Your task to perform on an android device: turn off smart reply in the gmail app Image 0: 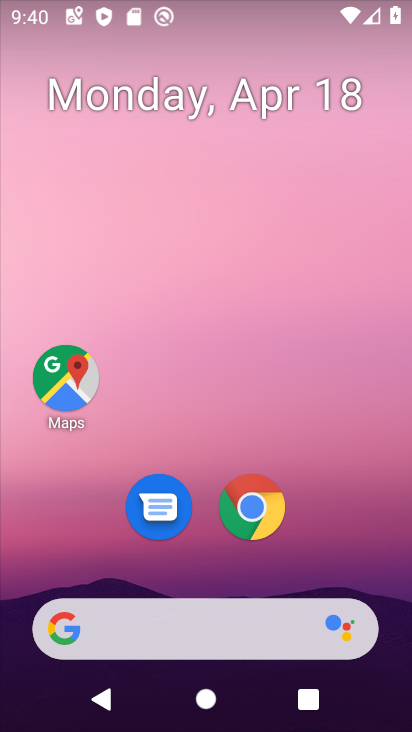
Step 0: drag from (192, 560) to (338, 69)
Your task to perform on an android device: turn off smart reply in the gmail app Image 1: 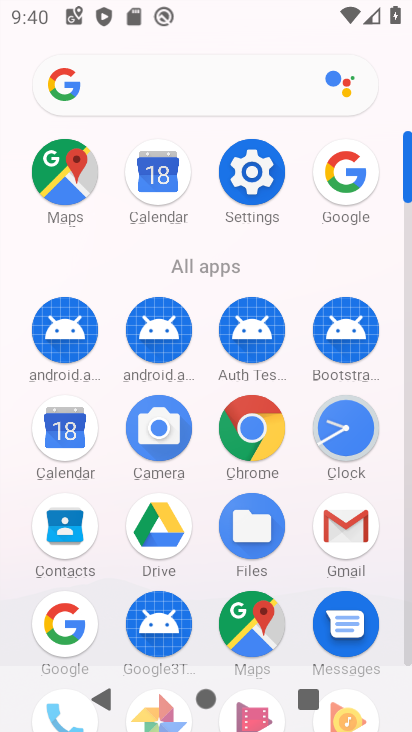
Step 1: click (361, 532)
Your task to perform on an android device: turn off smart reply in the gmail app Image 2: 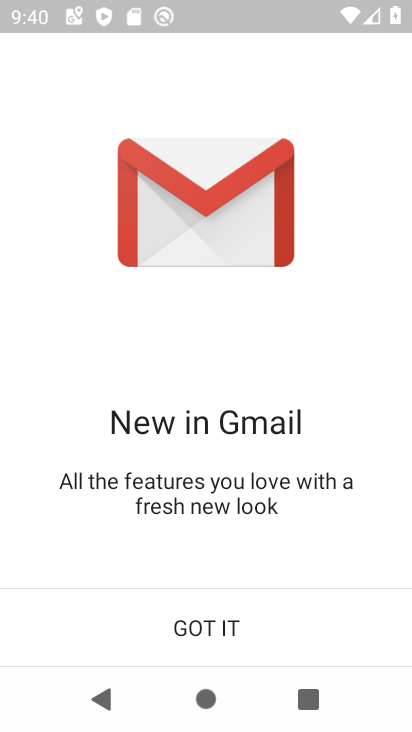
Step 2: click (235, 637)
Your task to perform on an android device: turn off smart reply in the gmail app Image 3: 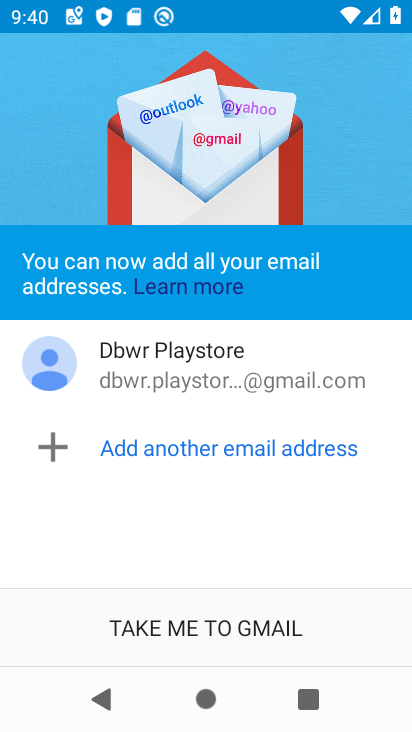
Step 3: click (239, 632)
Your task to perform on an android device: turn off smart reply in the gmail app Image 4: 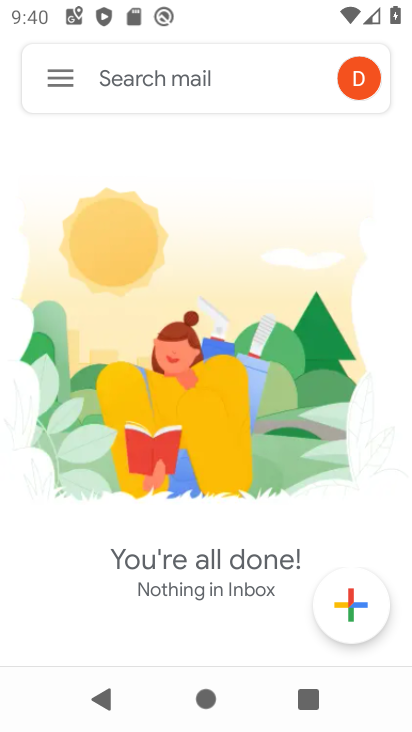
Step 4: click (66, 74)
Your task to perform on an android device: turn off smart reply in the gmail app Image 5: 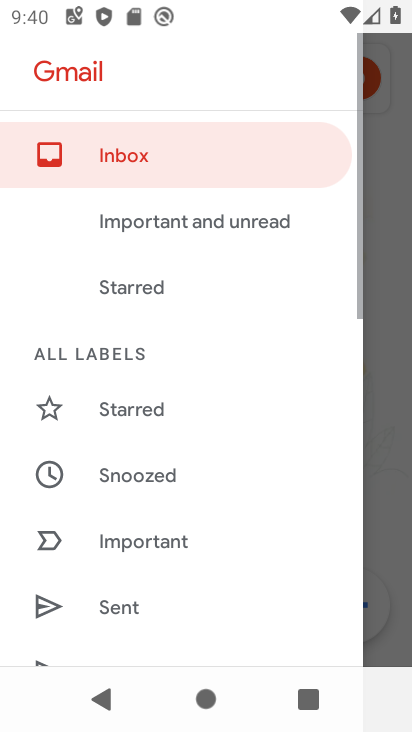
Step 5: drag from (206, 543) to (309, 293)
Your task to perform on an android device: turn off smart reply in the gmail app Image 6: 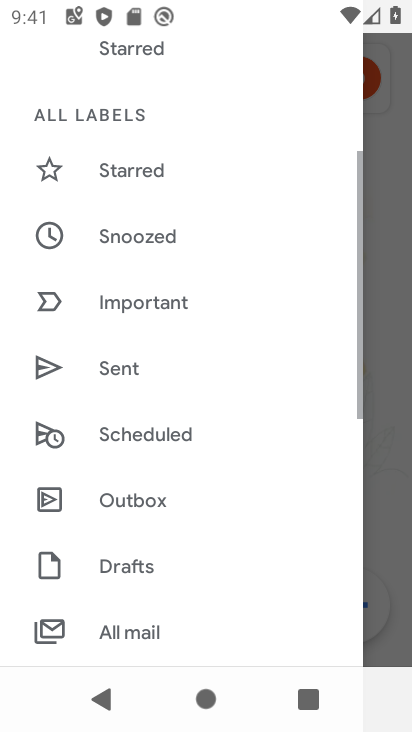
Step 6: drag from (221, 587) to (324, 263)
Your task to perform on an android device: turn off smart reply in the gmail app Image 7: 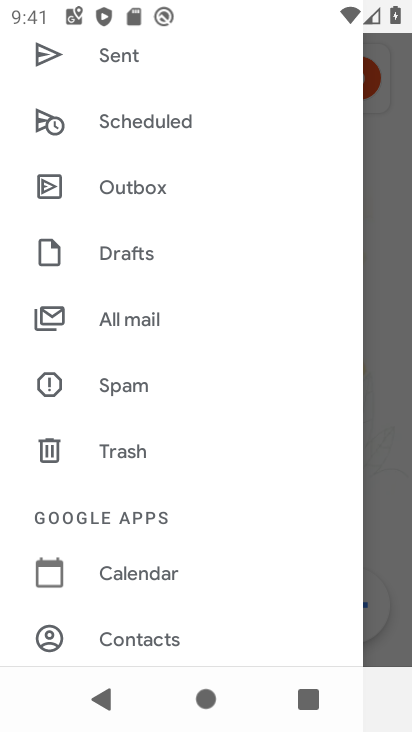
Step 7: drag from (192, 539) to (262, 280)
Your task to perform on an android device: turn off smart reply in the gmail app Image 8: 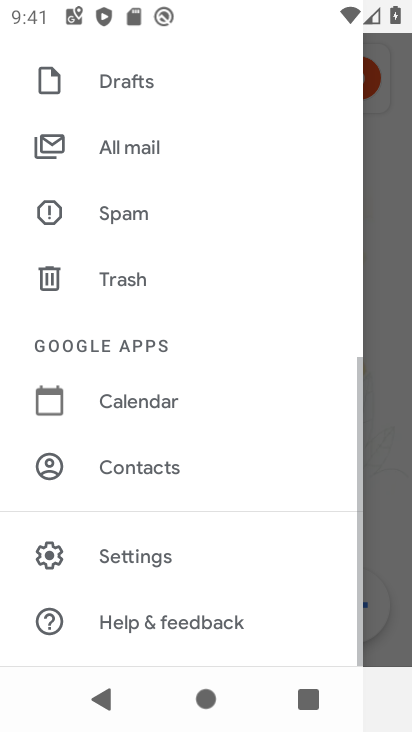
Step 8: click (165, 553)
Your task to perform on an android device: turn off smart reply in the gmail app Image 9: 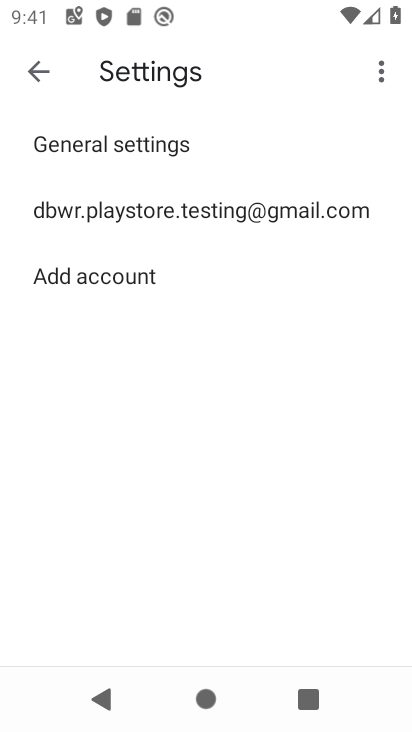
Step 9: click (238, 216)
Your task to perform on an android device: turn off smart reply in the gmail app Image 10: 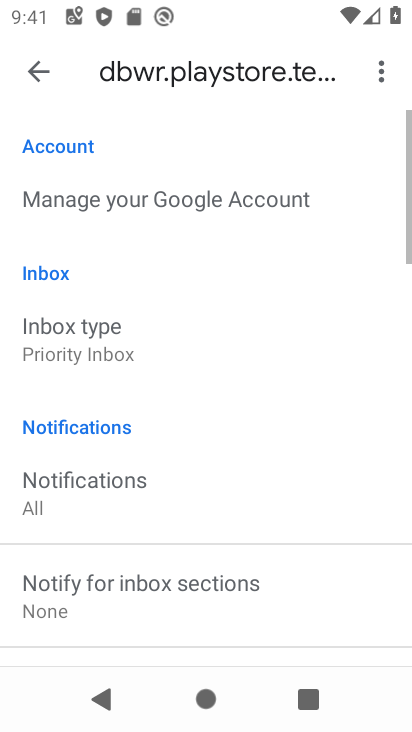
Step 10: drag from (194, 582) to (333, 172)
Your task to perform on an android device: turn off smart reply in the gmail app Image 11: 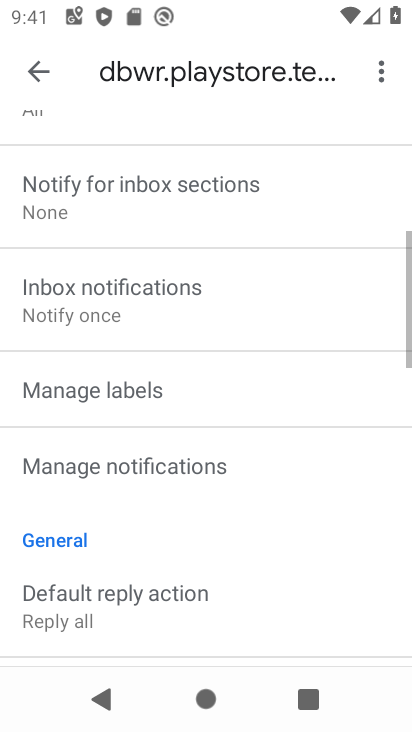
Step 11: drag from (226, 546) to (310, 223)
Your task to perform on an android device: turn off smart reply in the gmail app Image 12: 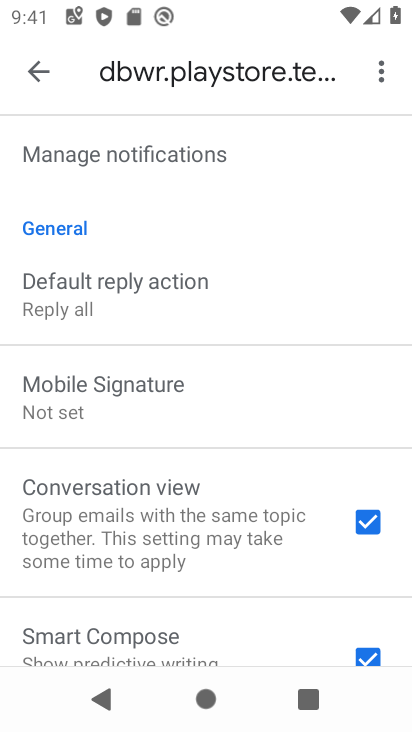
Step 12: drag from (186, 585) to (258, 324)
Your task to perform on an android device: turn off smart reply in the gmail app Image 13: 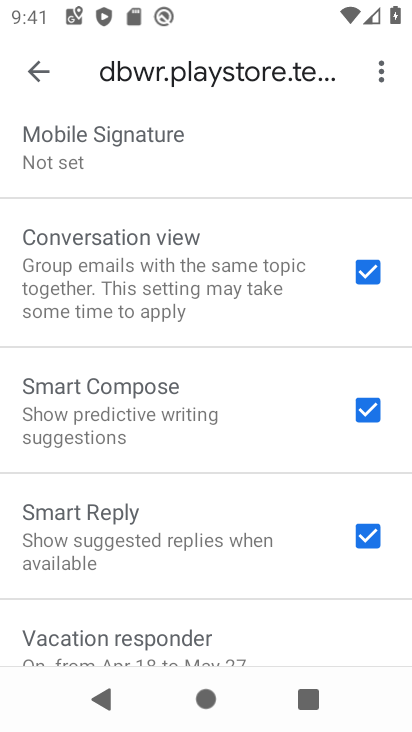
Step 13: click (365, 541)
Your task to perform on an android device: turn off smart reply in the gmail app Image 14: 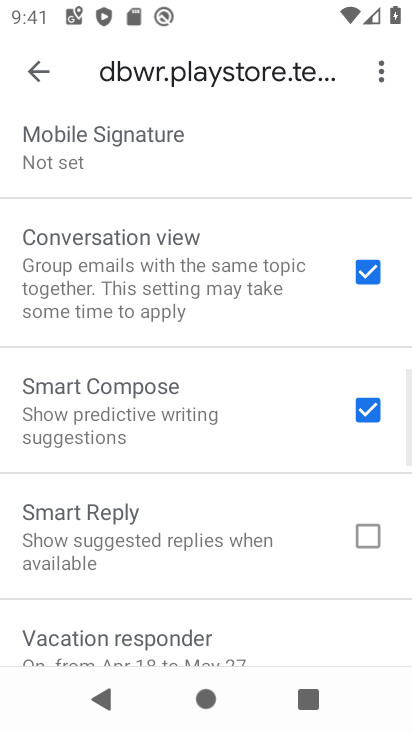
Step 14: task complete